Your task to perform on an android device: Open accessibility settings Image 0: 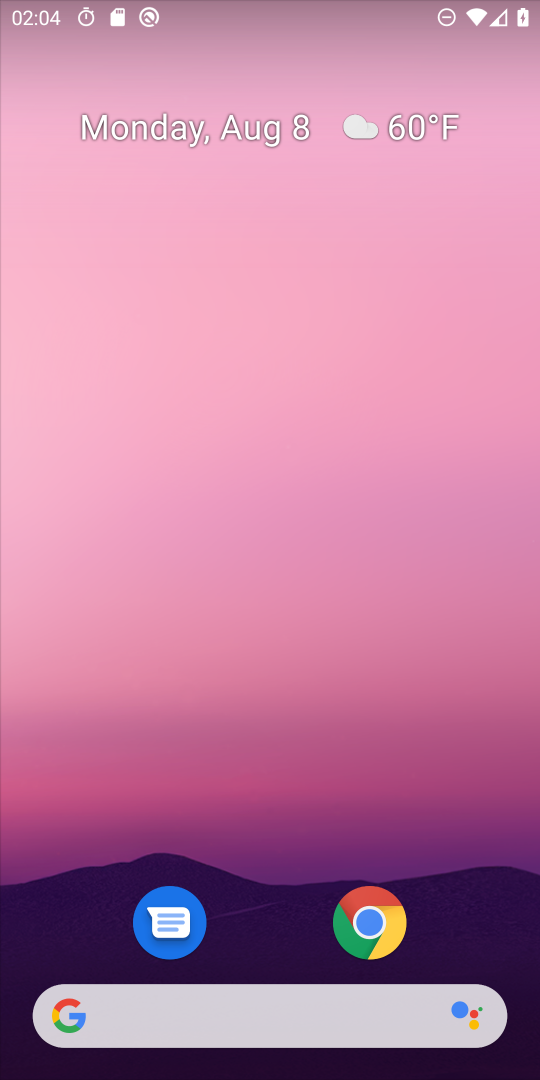
Step 0: drag from (267, 588) to (289, 7)
Your task to perform on an android device: Open accessibility settings Image 1: 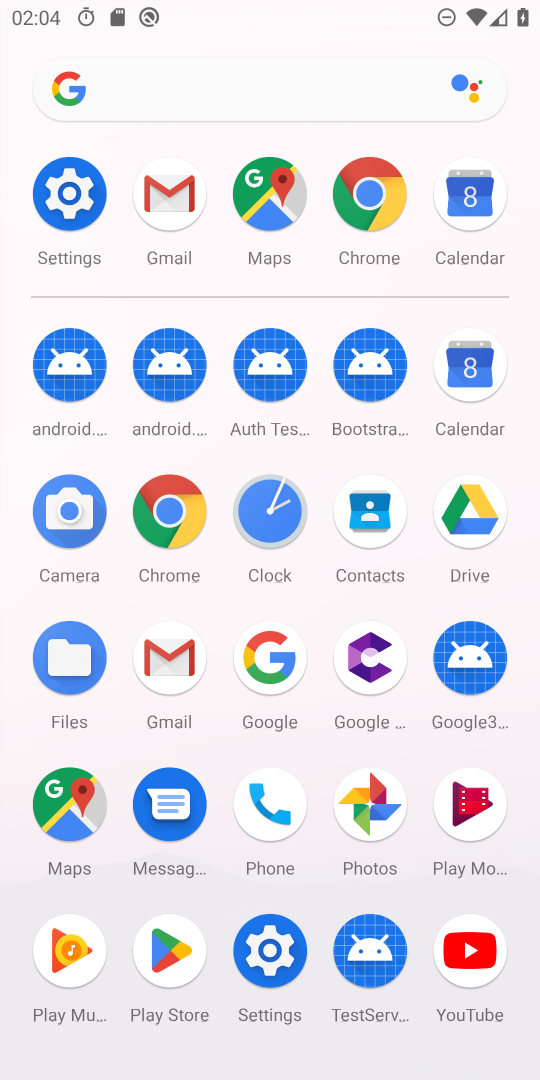
Step 1: click (263, 966)
Your task to perform on an android device: Open accessibility settings Image 2: 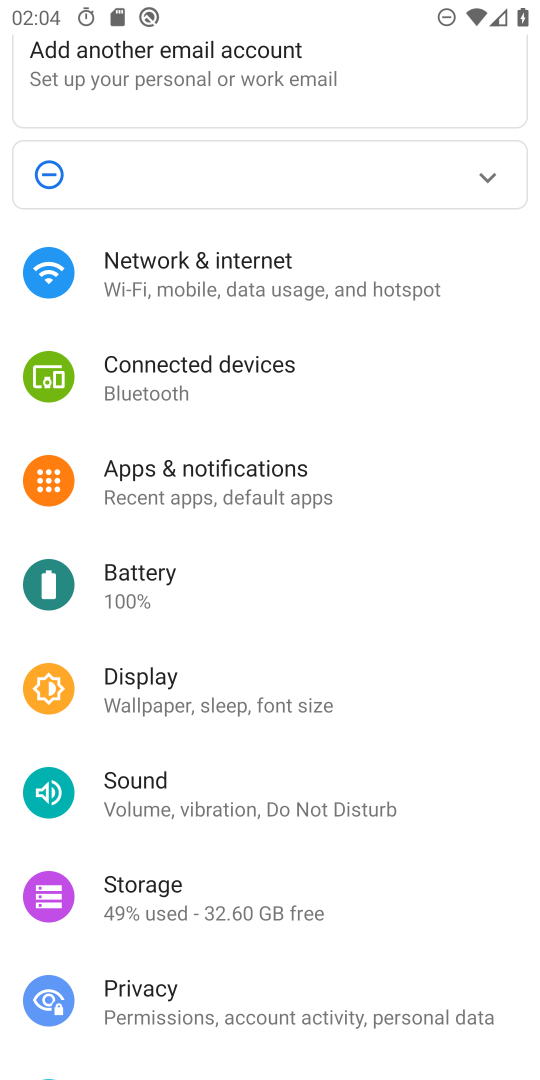
Step 2: drag from (286, 856) to (318, 86)
Your task to perform on an android device: Open accessibility settings Image 3: 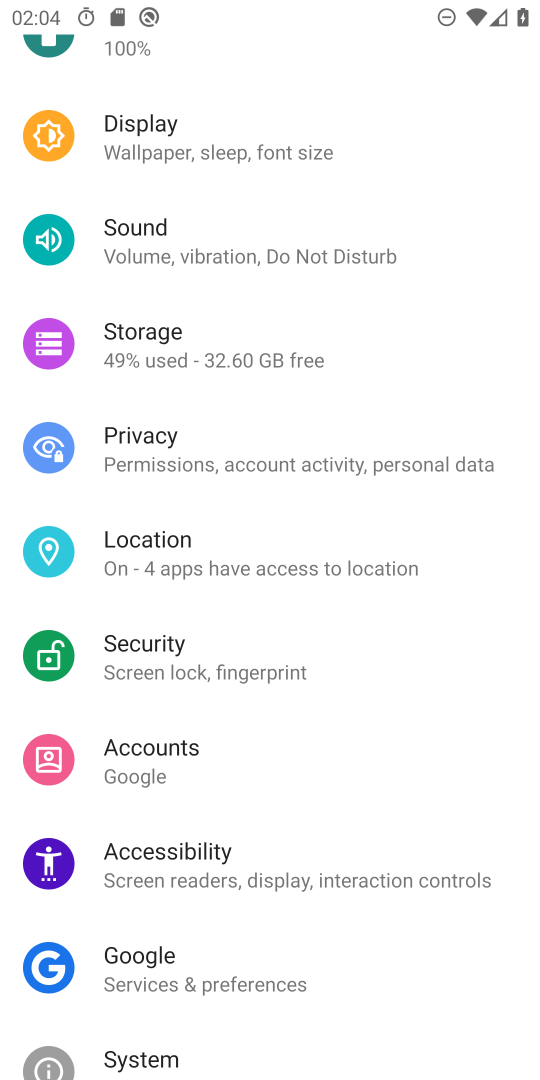
Step 3: click (260, 870)
Your task to perform on an android device: Open accessibility settings Image 4: 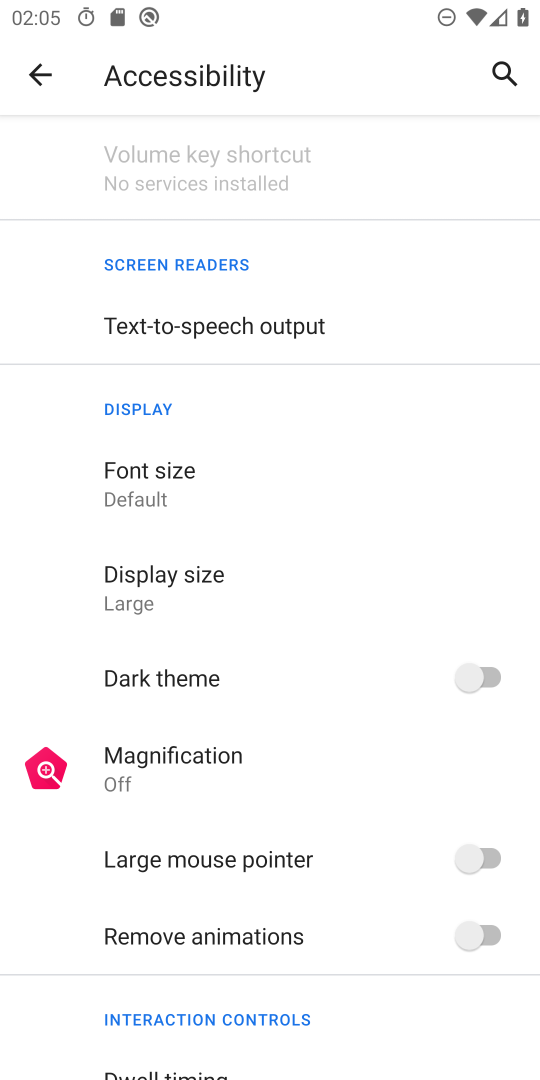
Step 4: task complete